Your task to perform on an android device: Go to battery settings Image 0: 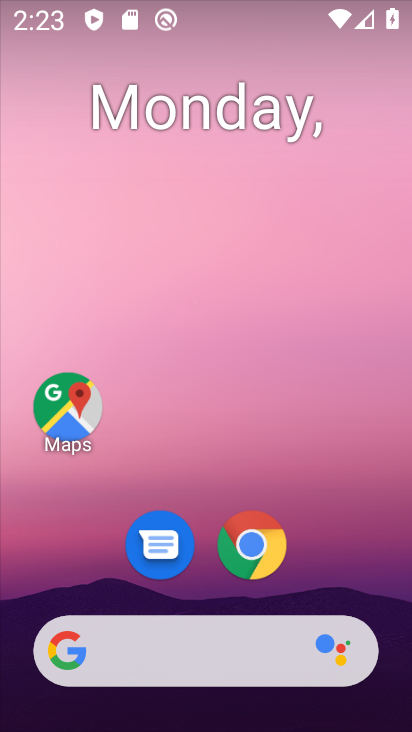
Step 0: drag from (159, 557) to (208, 139)
Your task to perform on an android device: Go to battery settings Image 1: 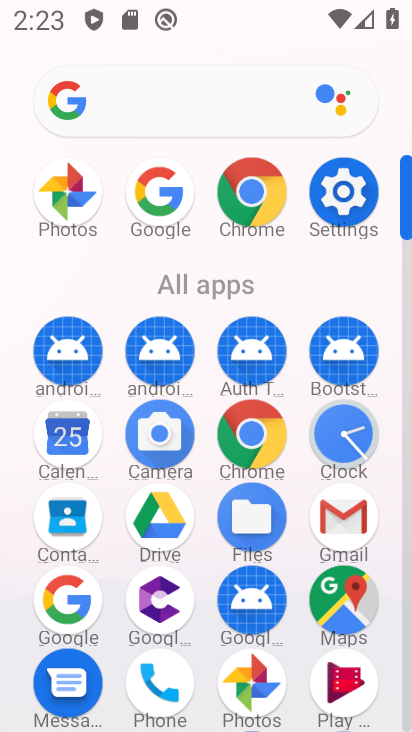
Step 1: click (347, 195)
Your task to perform on an android device: Go to battery settings Image 2: 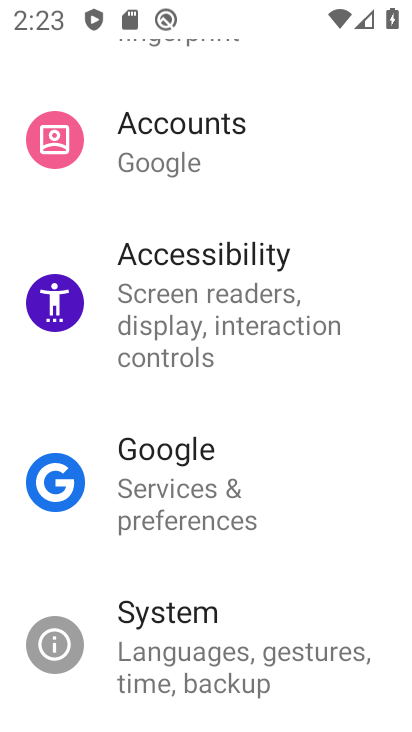
Step 2: drag from (240, 176) to (161, 719)
Your task to perform on an android device: Go to battery settings Image 3: 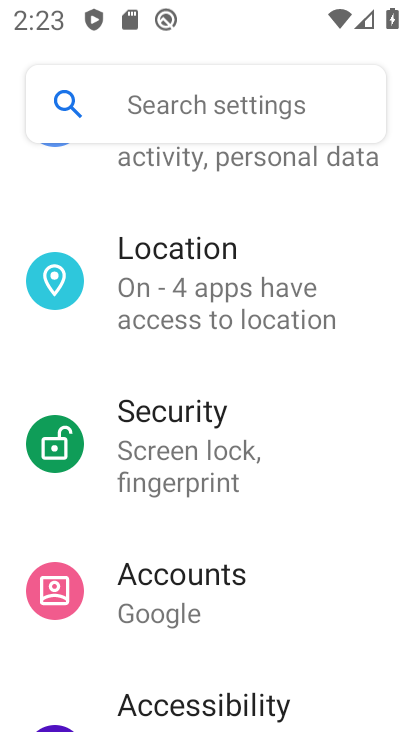
Step 3: drag from (202, 209) to (138, 726)
Your task to perform on an android device: Go to battery settings Image 4: 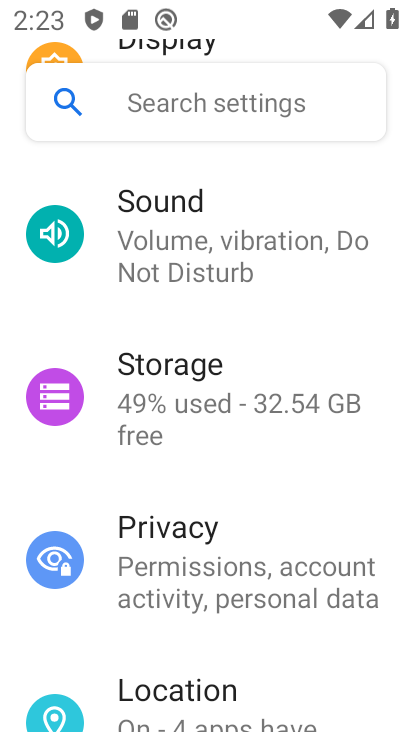
Step 4: drag from (213, 279) to (177, 698)
Your task to perform on an android device: Go to battery settings Image 5: 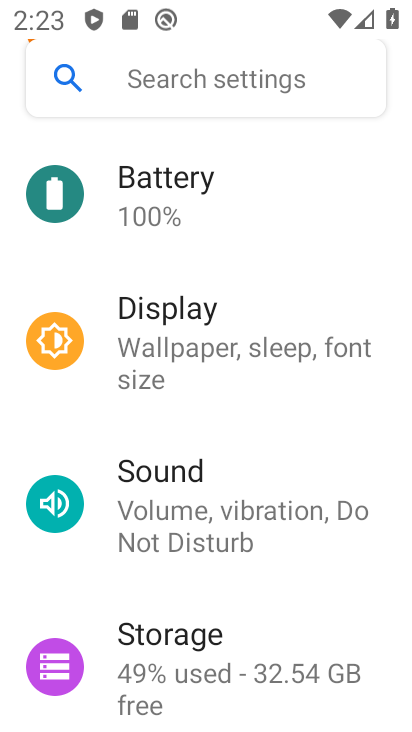
Step 5: click (172, 220)
Your task to perform on an android device: Go to battery settings Image 6: 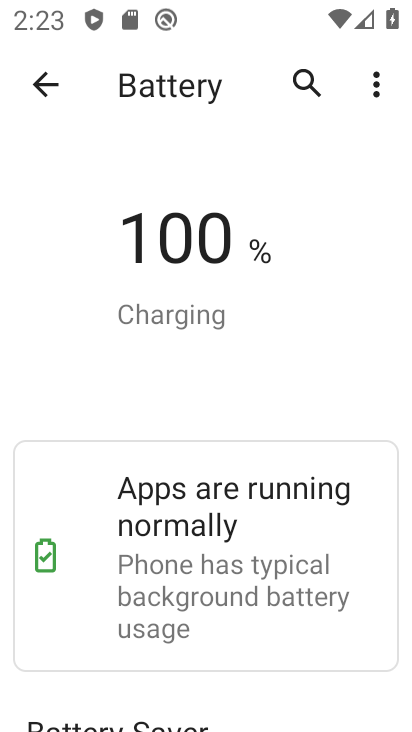
Step 6: task complete